Your task to perform on an android device: toggle sleep mode Image 0: 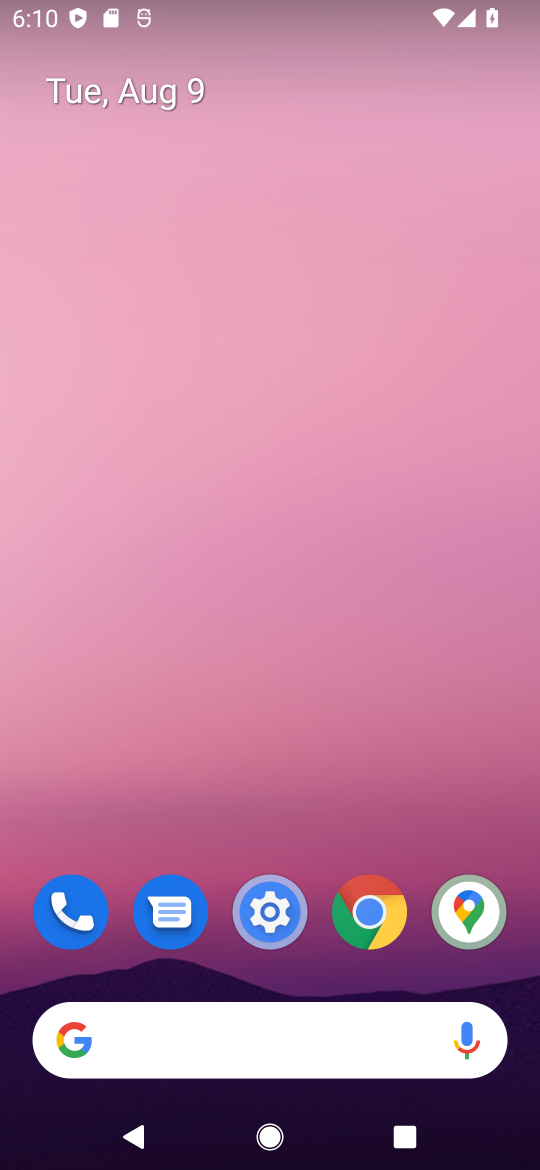
Step 0: press home button
Your task to perform on an android device: toggle sleep mode Image 1: 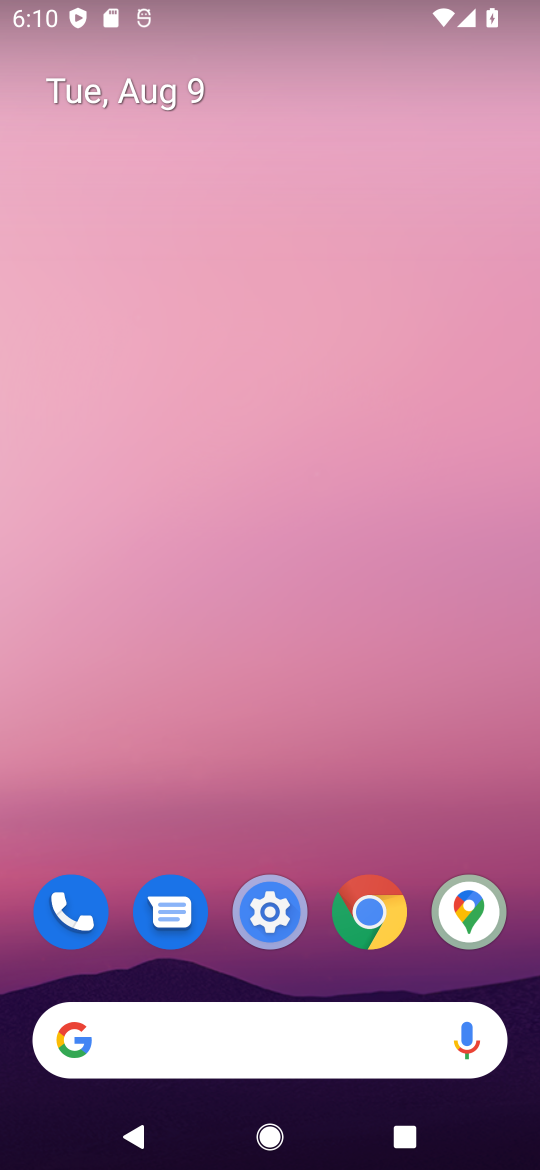
Step 1: drag from (357, 788) to (398, 8)
Your task to perform on an android device: toggle sleep mode Image 2: 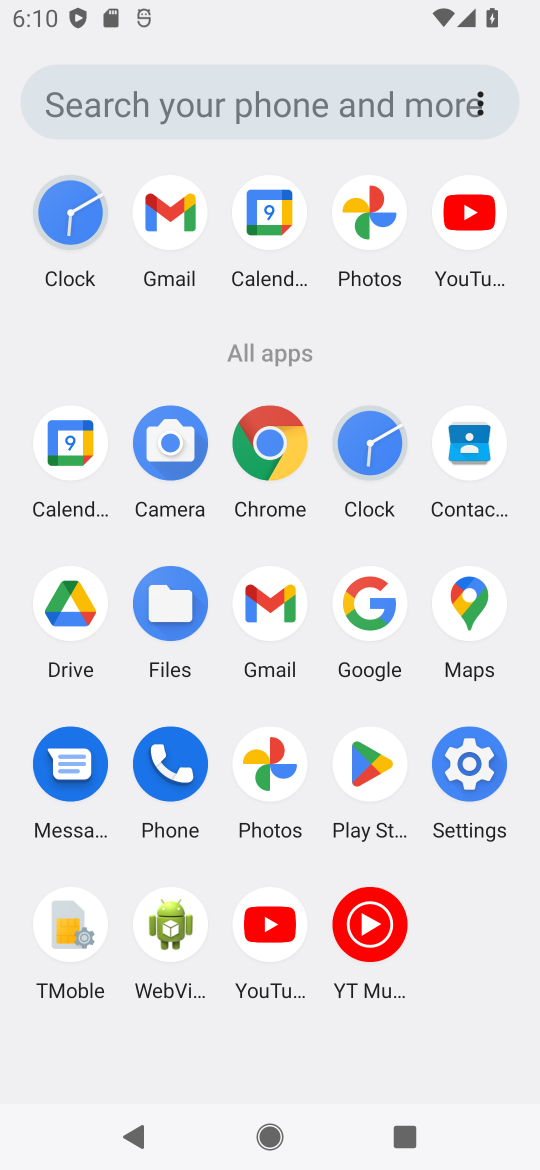
Step 2: click (470, 768)
Your task to perform on an android device: toggle sleep mode Image 3: 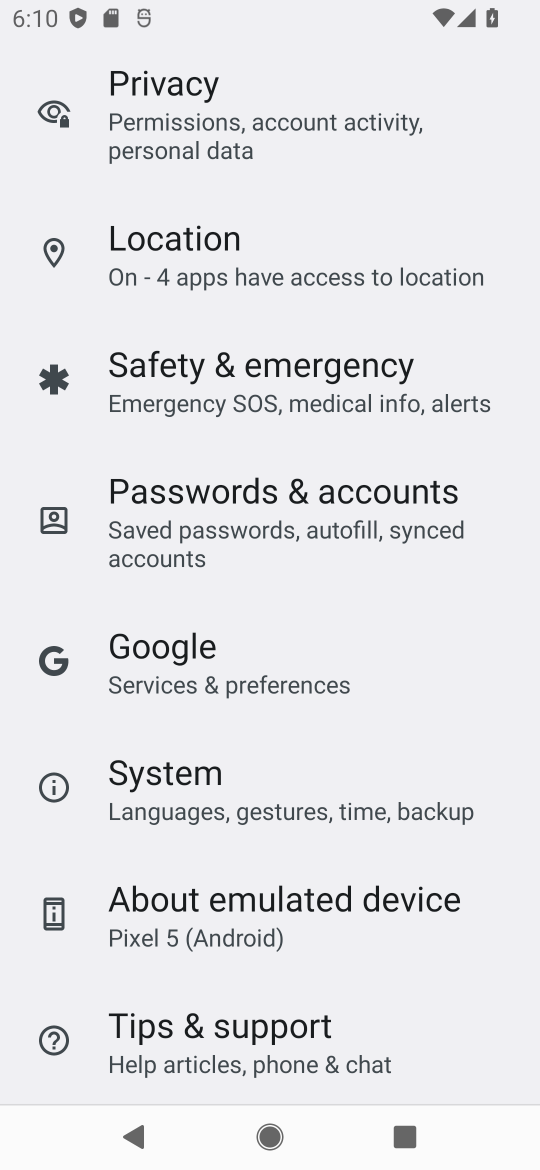
Step 3: drag from (276, 206) to (327, 970)
Your task to perform on an android device: toggle sleep mode Image 4: 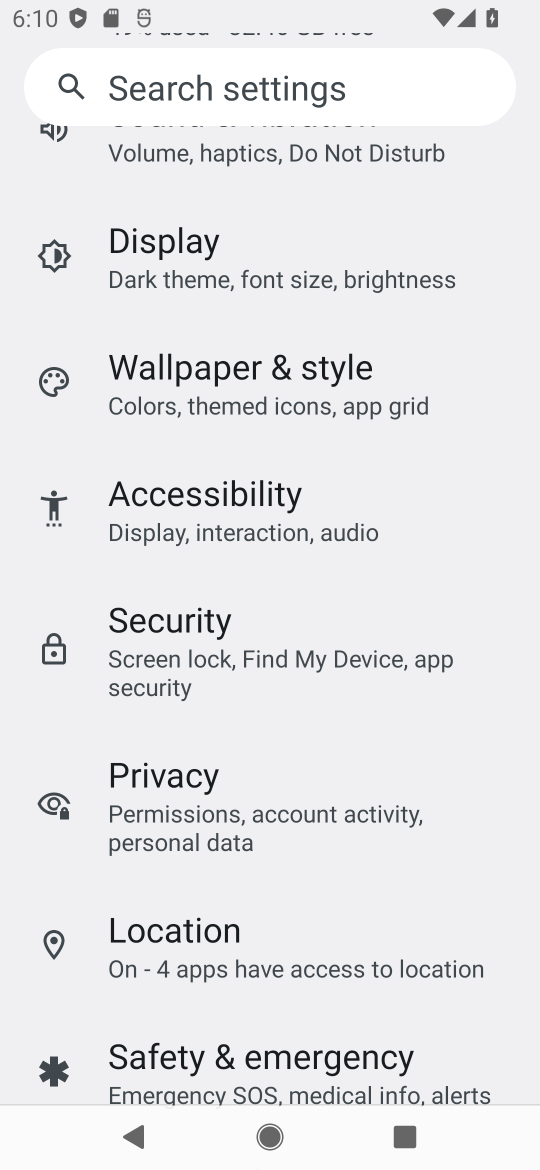
Step 4: click (261, 278)
Your task to perform on an android device: toggle sleep mode Image 5: 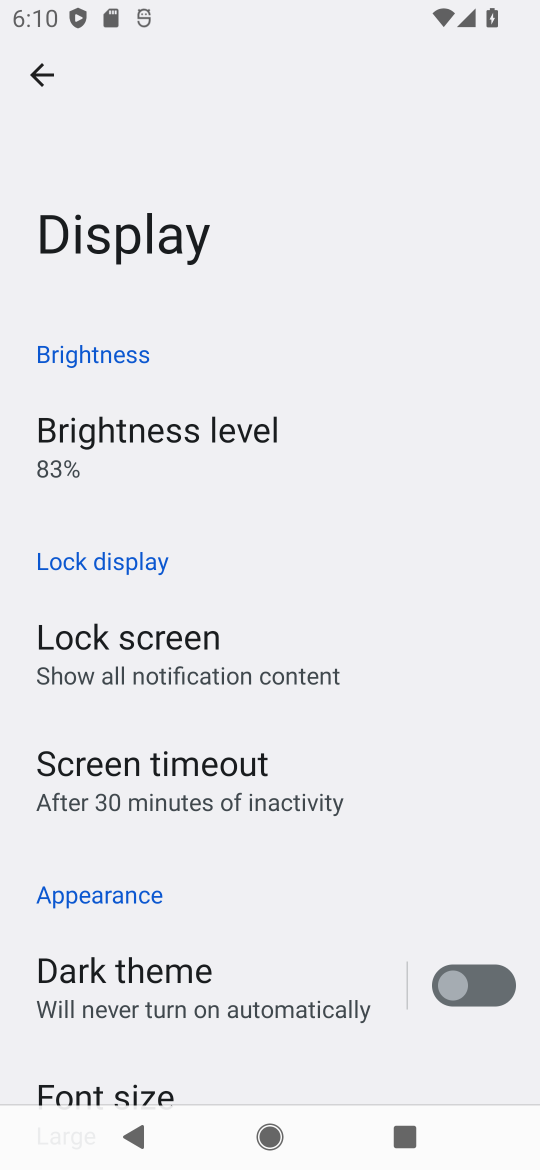
Step 5: task complete